Your task to perform on an android device: Go to Reddit.com Image 0: 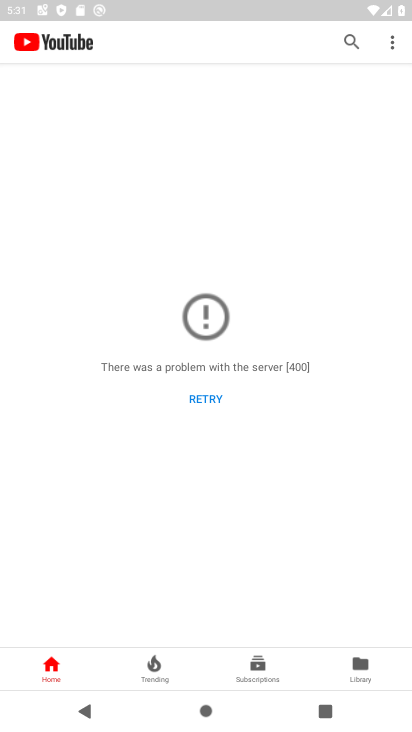
Step 0: press back button
Your task to perform on an android device: Go to Reddit.com Image 1: 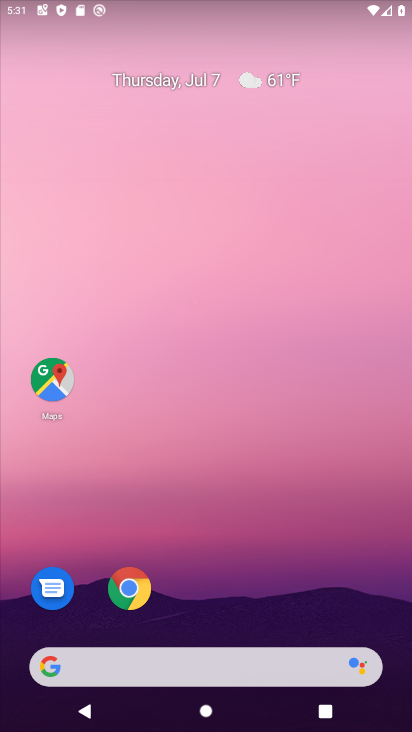
Step 1: click (123, 594)
Your task to perform on an android device: Go to Reddit.com Image 2: 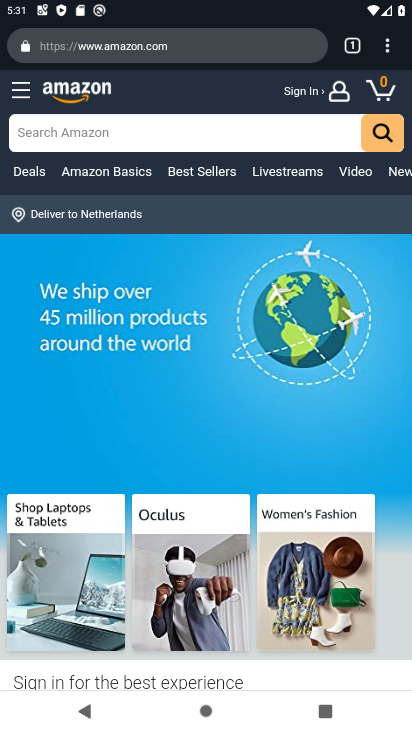
Step 2: click (349, 43)
Your task to perform on an android device: Go to Reddit.com Image 3: 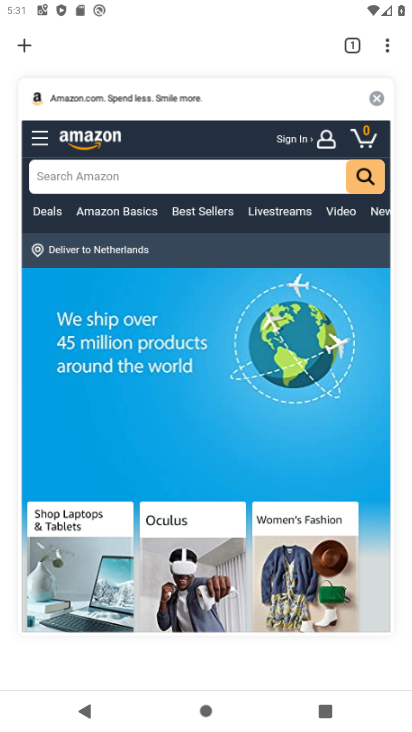
Step 3: click (22, 41)
Your task to perform on an android device: Go to Reddit.com Image 4: 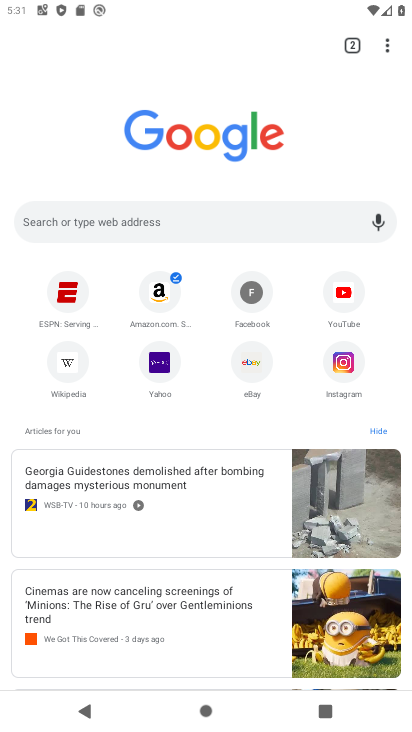
Step 4: click (179, 215)
Your task to perform on an android device: Go to Reddit.com Image 5: 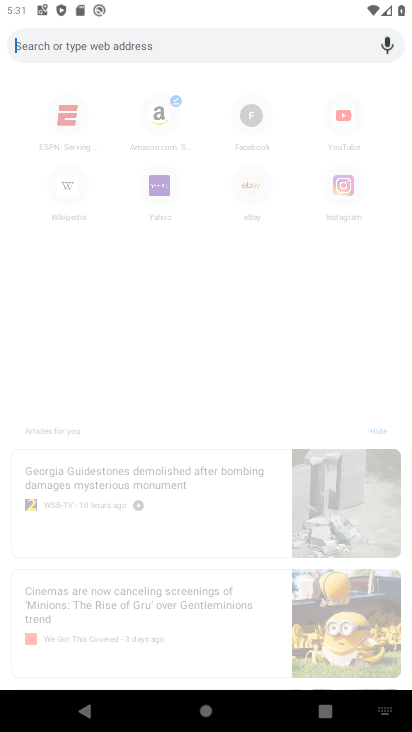
Step 5: type "reddit.com"
Your task to perform on an android device: Go to Reddit.com Image 6: 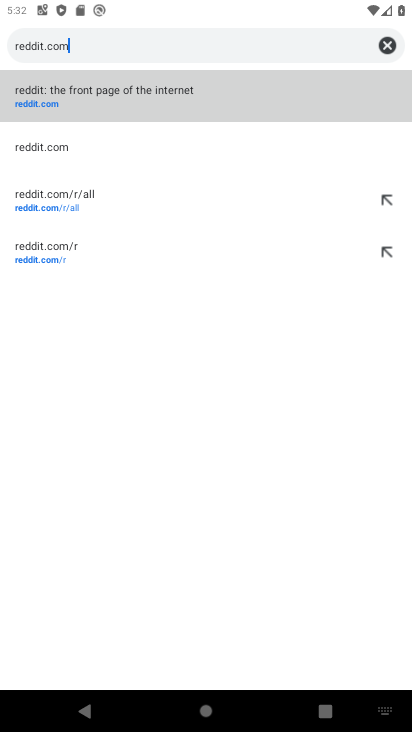
Step 6: click (93, 96)
Your task to perform on an android device: Go to Reddit.com Image 7: 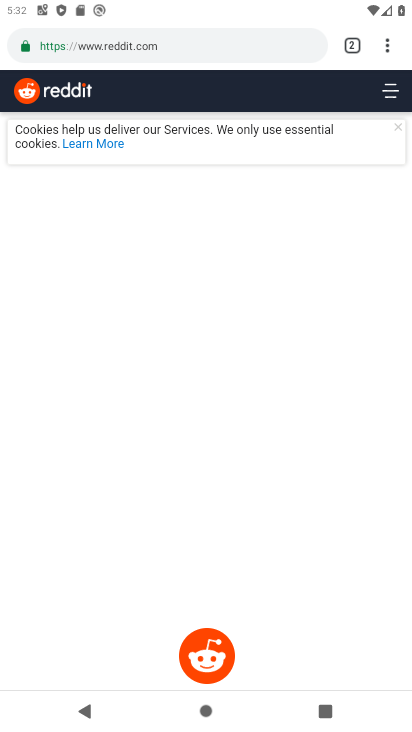
Step 7: task complete